Your task to perform on an android device: What's the weather going to be tomorrow? Image 0: 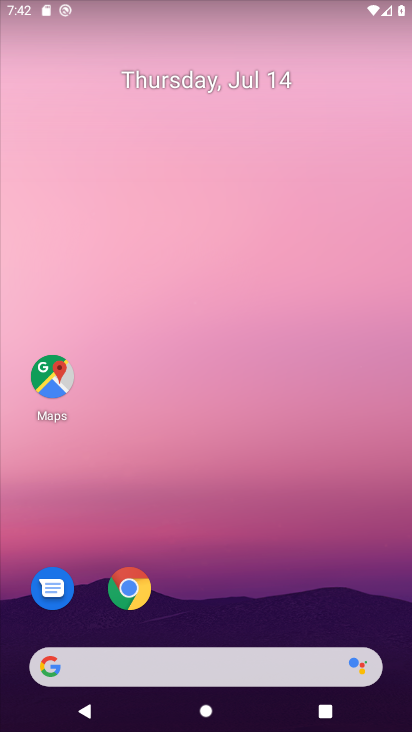
Step 0: click (211, 664)
Your task to perform on an android device: What's the weather going to be tomorrow? Image 1: 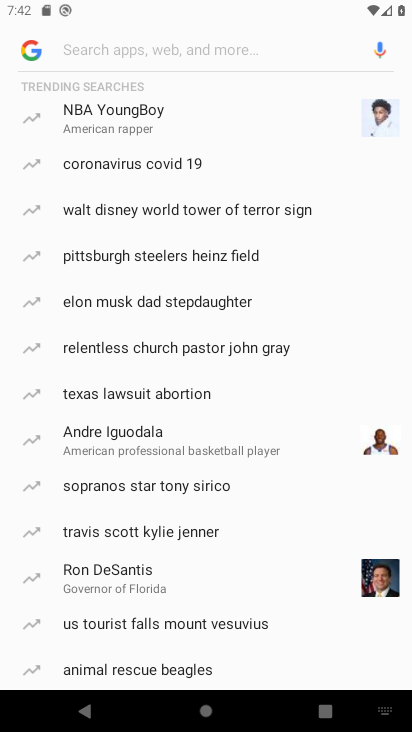
Step 1: type "weather"
Your task to perform on an android device: What's the weather going to be tomorrow? Image 2: 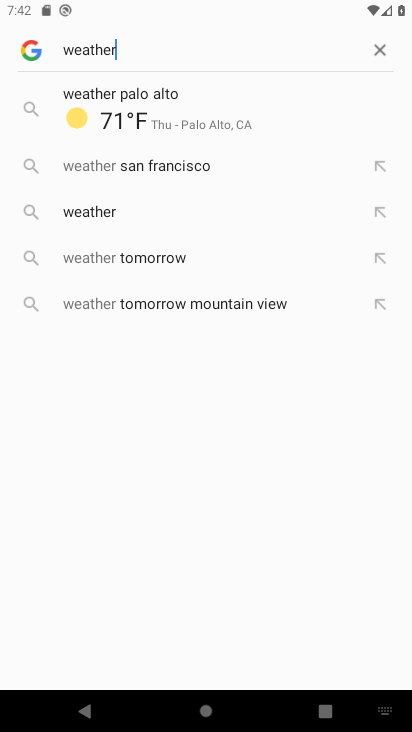
Step 2: click (211, 118)
Your task to perform on an android device: What's the weather going to be tomorrow? Image 3: 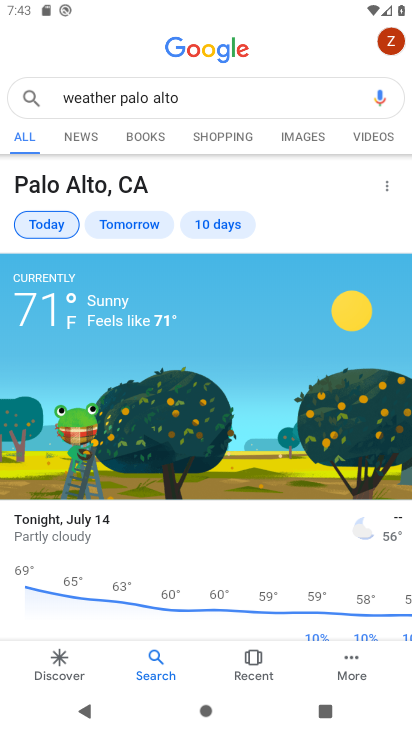
Step 3: click (136, 225)
Your task to perform on an android device: What's the weather going to be tomorrow? Image 4: 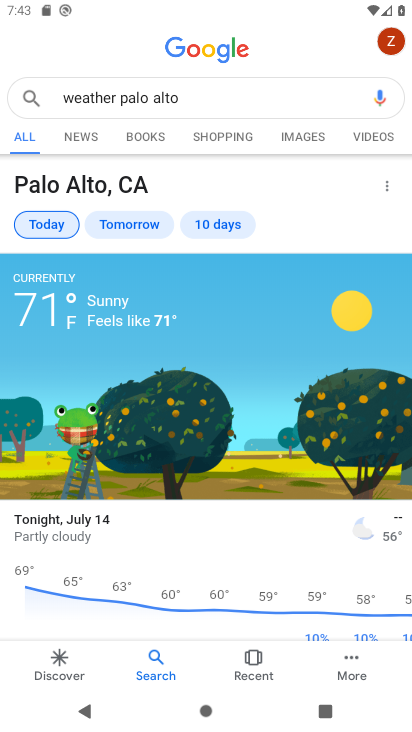
Step 4: click (134, 221)
Your task to perform on an android device: What's the weather going to be tomorrow? Image 5: 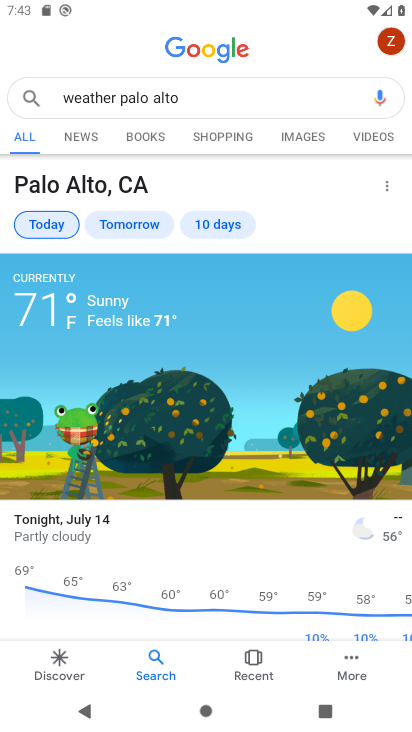
Step 5: click (136, 219)
Your task to perform on an android device: What's the weather going to be tomorrow? Image 6: 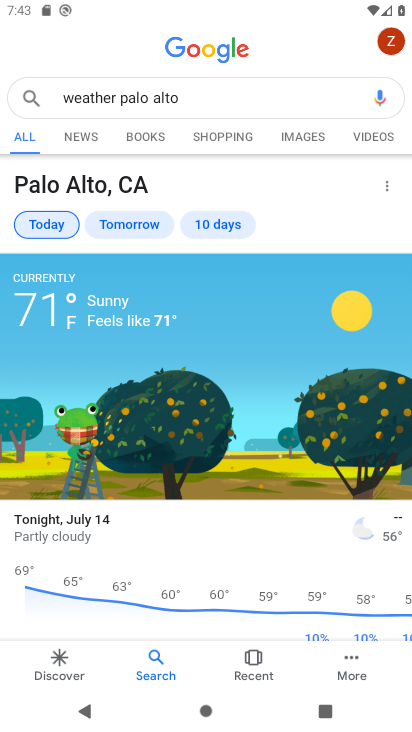
Step 6: click (136, 219)
Your task to perform on an android device: What's the weather going to be tomorrow? Image 7: 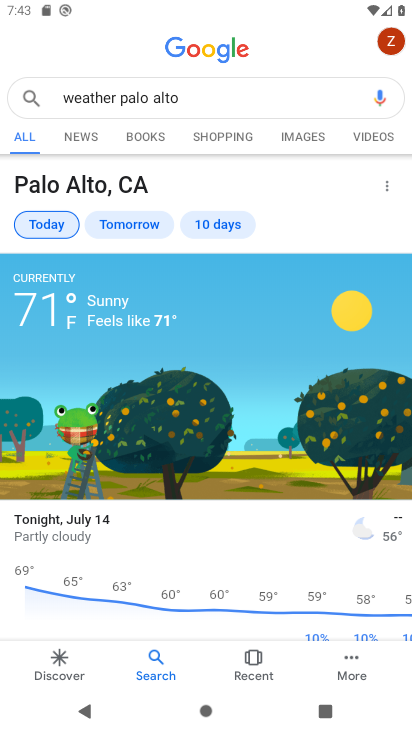
Step 7: task complete